Your task to perform on an android device: Open my contact list Image 0: 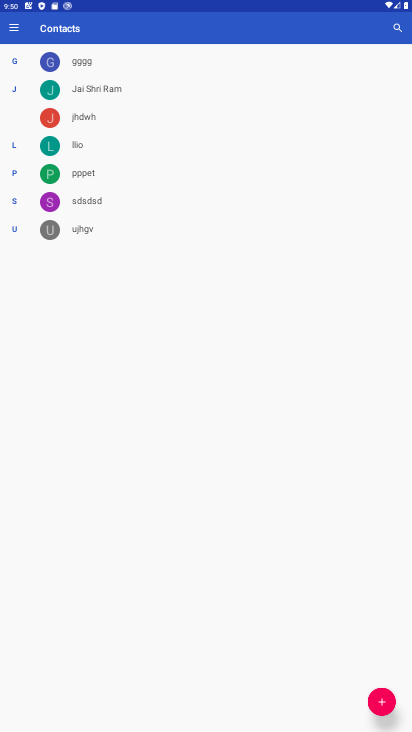
Step 0: task complete